Your task to perform on an android device: Open eBay Image 0: 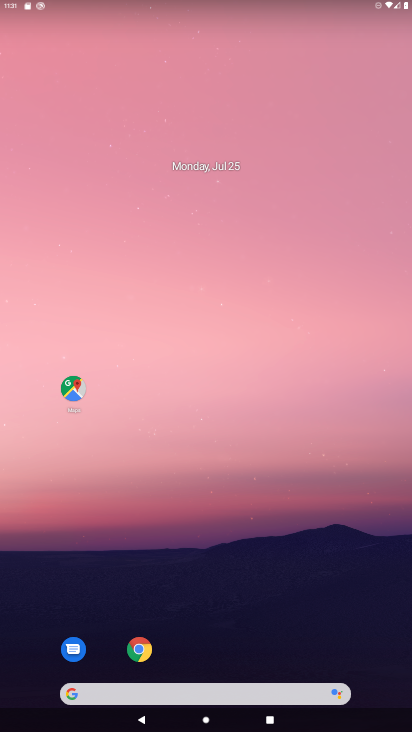
Step 0: click (142, 650)
Your task to perform on an android device: Open eBay Image 1: 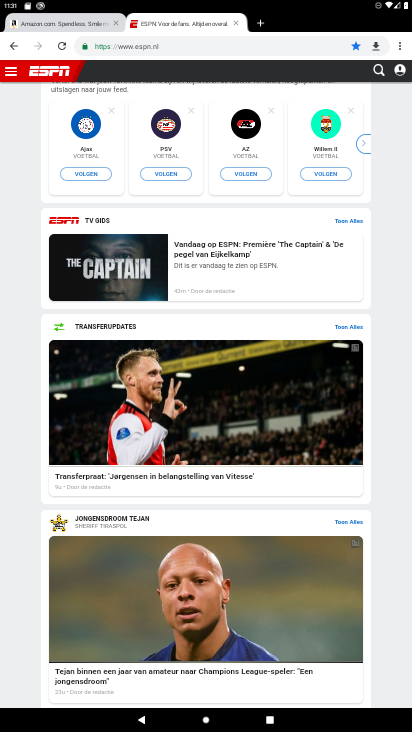
Step 1: click (189, 47)
Your task to perform on an android device: Open eBay Image 2: 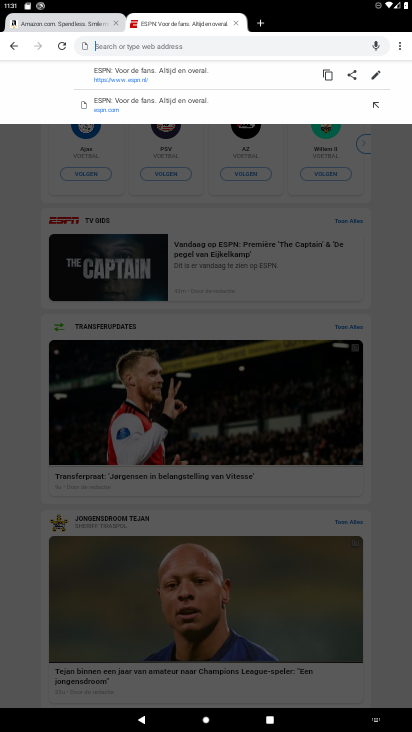
Step 2: type "eBay"
Your task to perform on an android device: Open eBay Image 3: 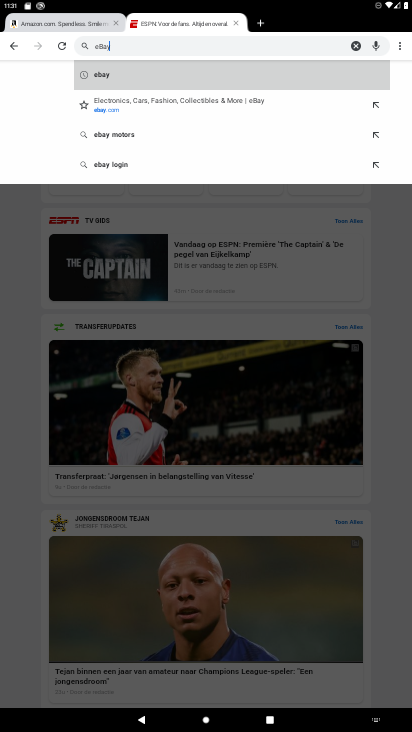
Step 3: click (102, 77)
Your task to perform on an android device: Open eBay Image 4: 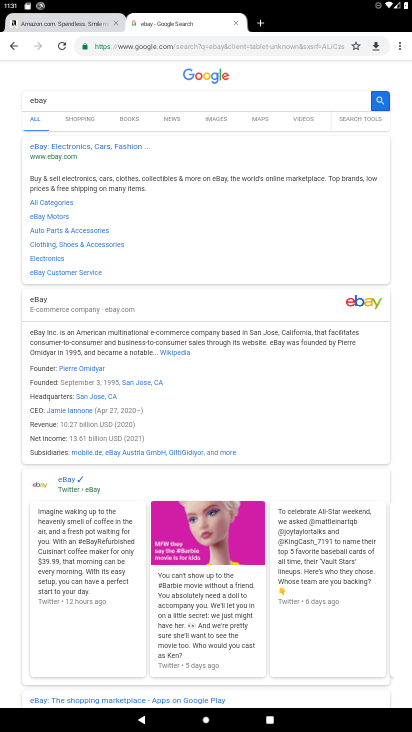
Step 4: click (58, 157)
Your task to perform on an android device: Open eBay Image 5: 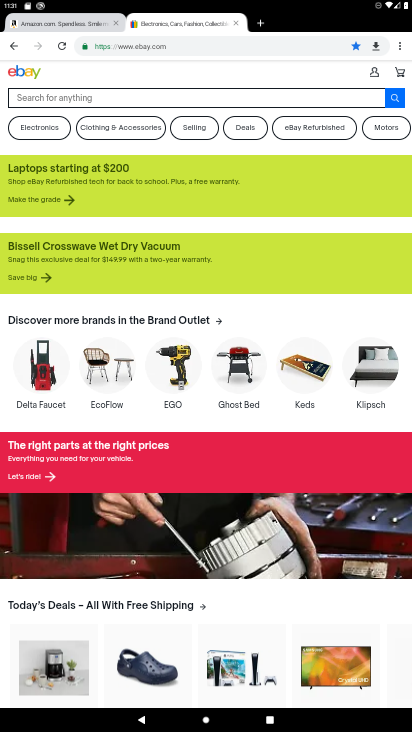
Step 5: task complete